Your task to perform on an android device: Go to Amazon Image 0: 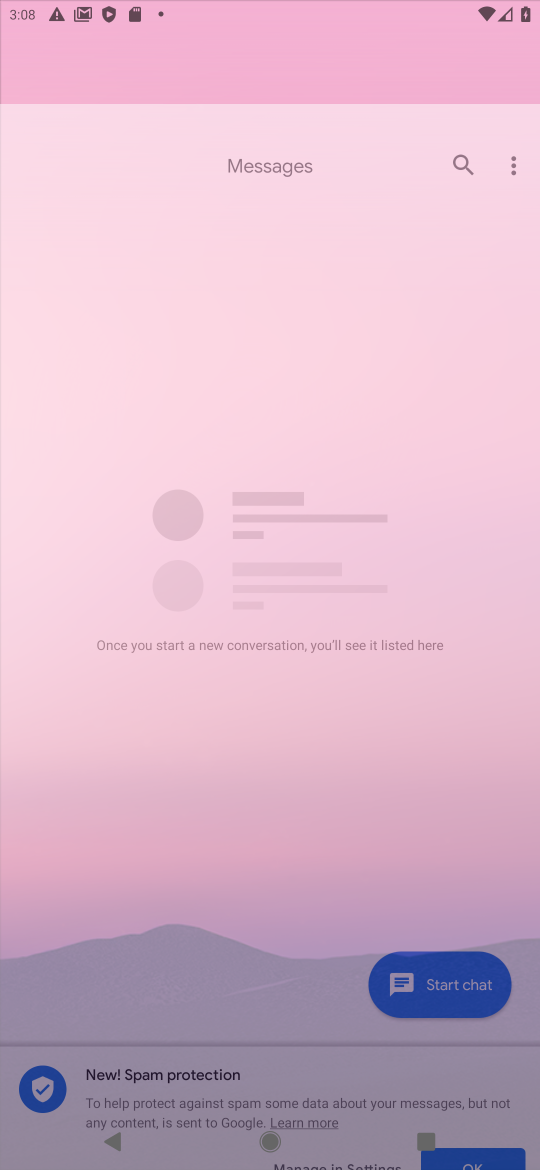
Step 0: press home button
Your task to perform on an android device: Go to Amazon Image 1: 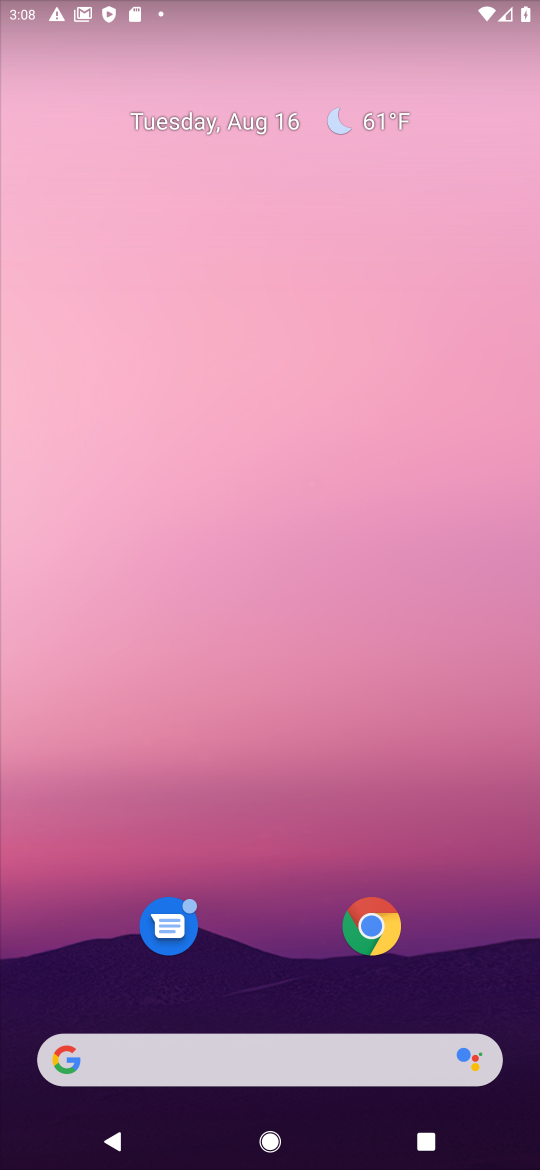
Step 1: drag from (267, 1023) to (198, 75)
Your task to perform on an android device: Go to Amazon Image 2: 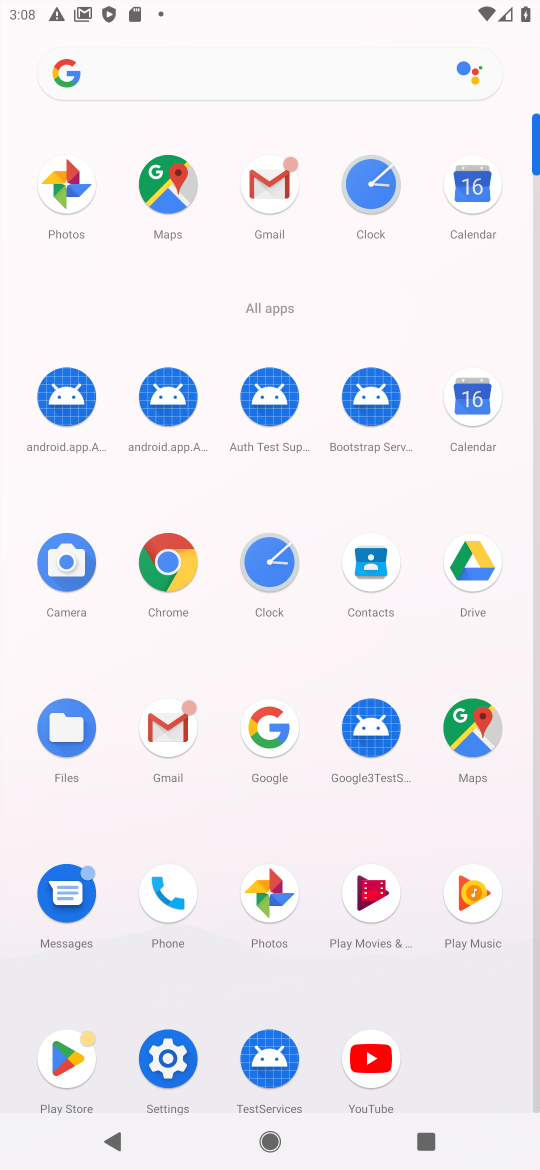
Step 2: click (167, 567)
Your task to perform on an android device: Go to Amazon Image 3: 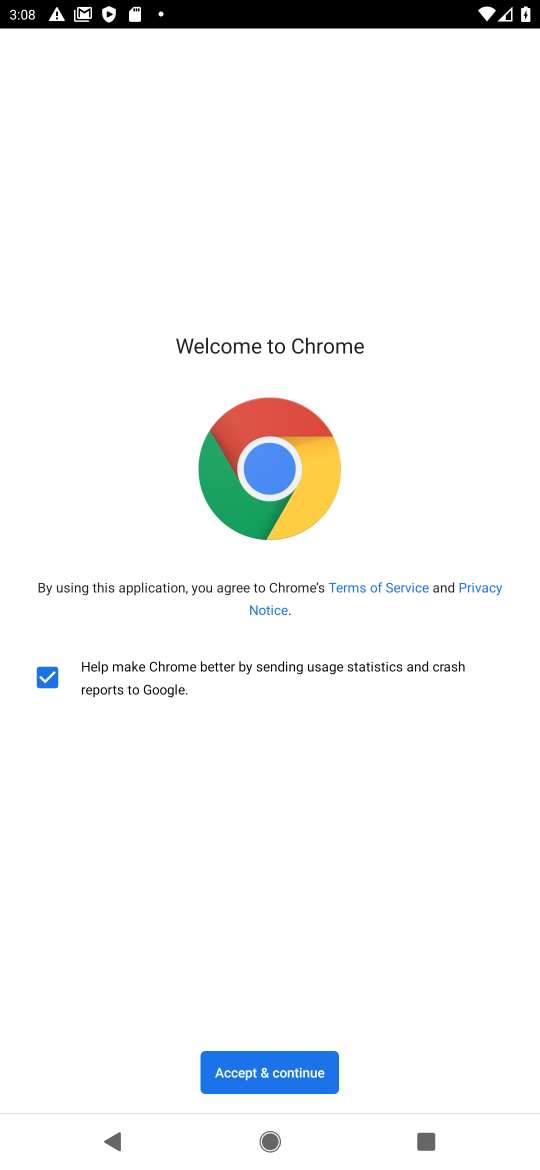
Step 3: click (274, 1062)
Your task to perform on an android device: Go to Amazon Image 4: 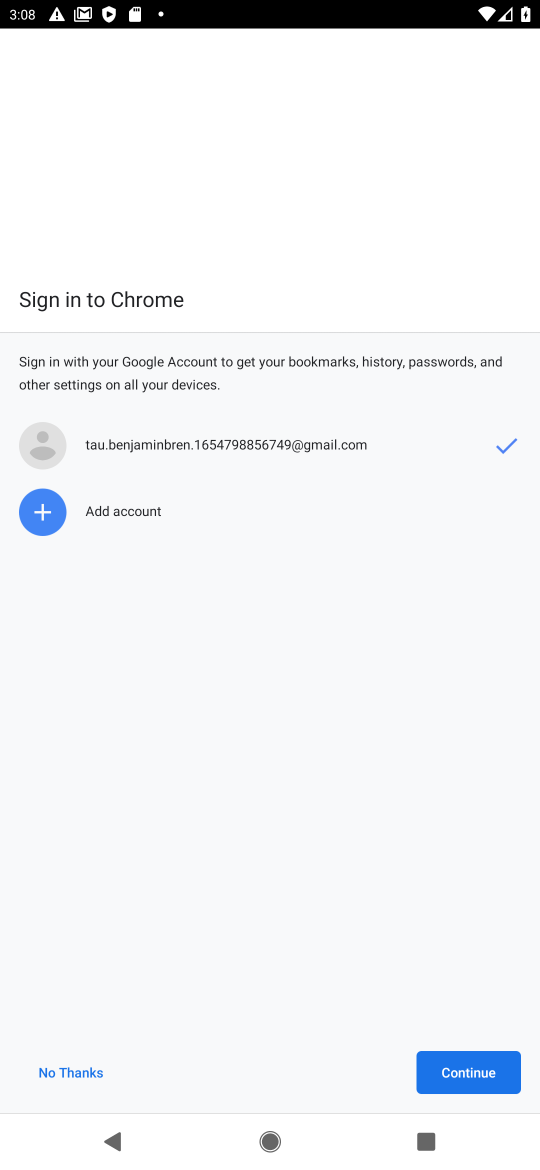
Step 4: click (472, 1054)
Your task to perform on an android device: Go to Amazon Image 5: 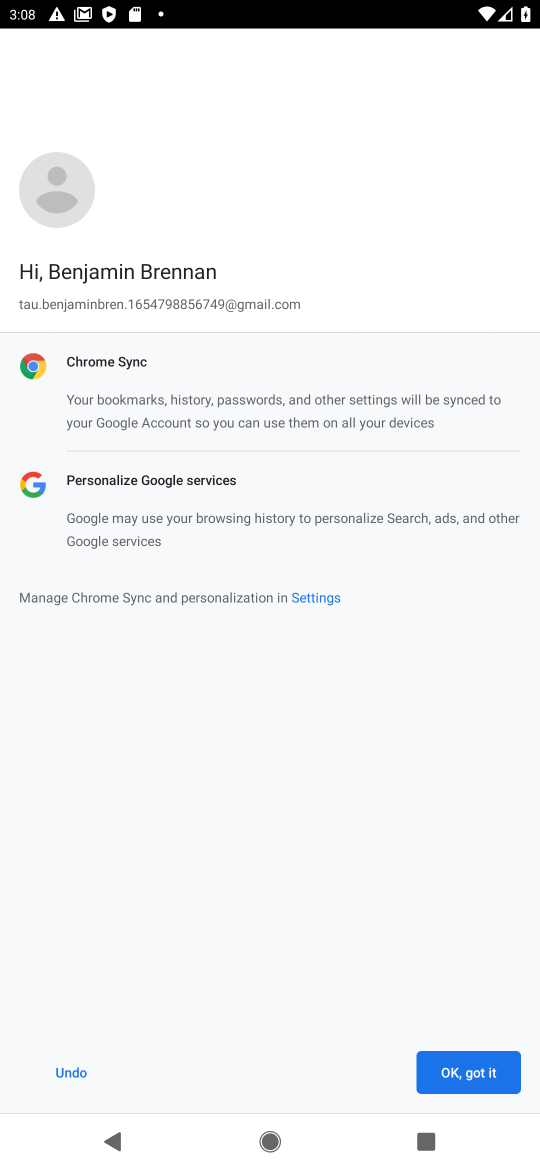
Step 5: click (472, 1054)
Your task to perform on an android device: Go to Amazon Image 6: 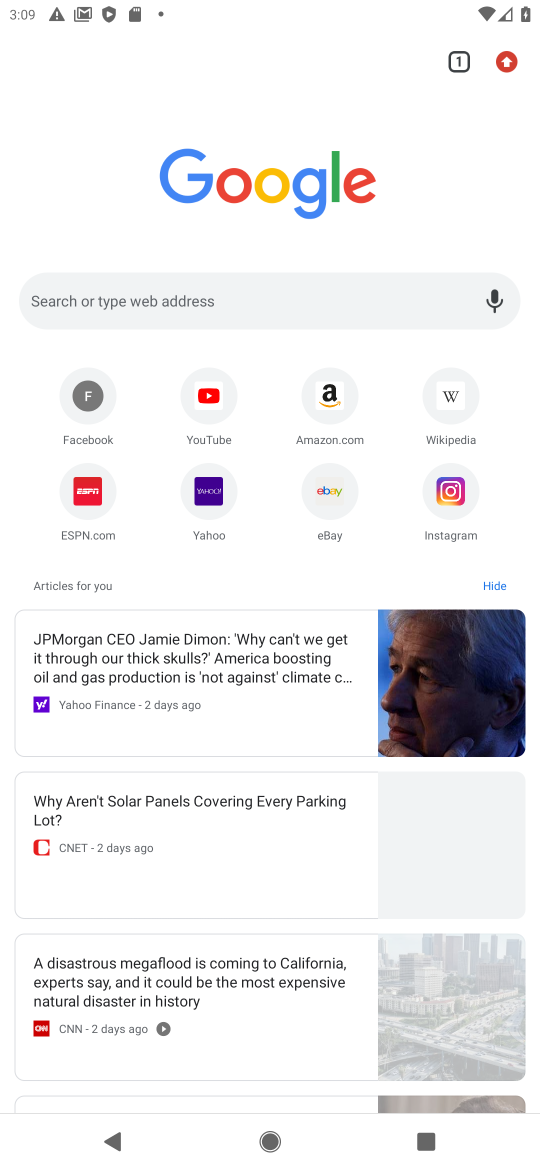
Step 6: click (330, 389)
Your task to perform on an android device: Go to Amazon Image 7: 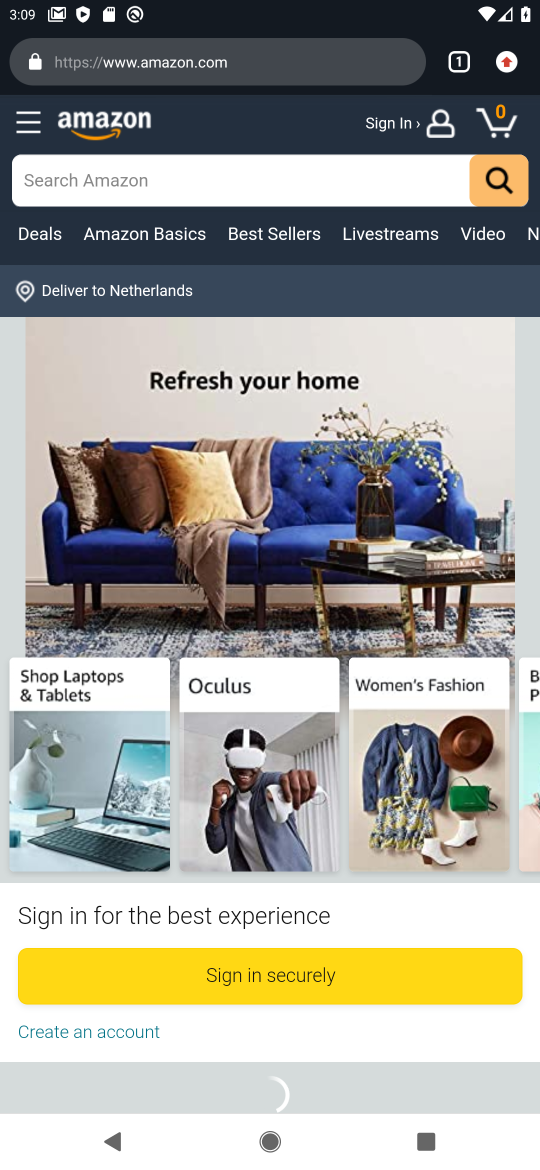
Step 7: task complete